Your task to perform on an android device: Open my contact list Image 0: 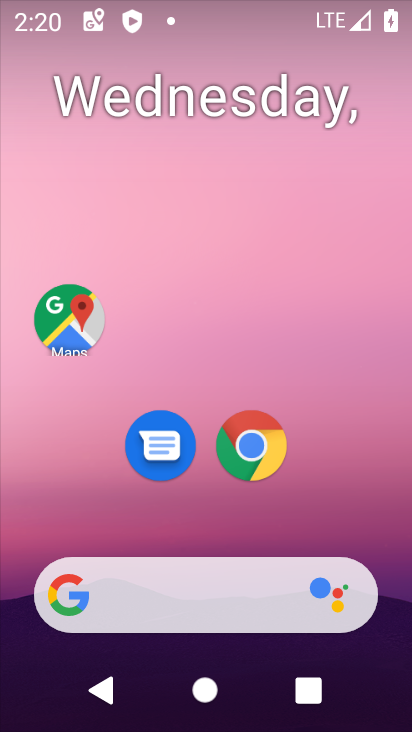
Step 0: drag from (207, 516) to (211, 163)
Your task to perform on an android device: Open my contact list Image 1: 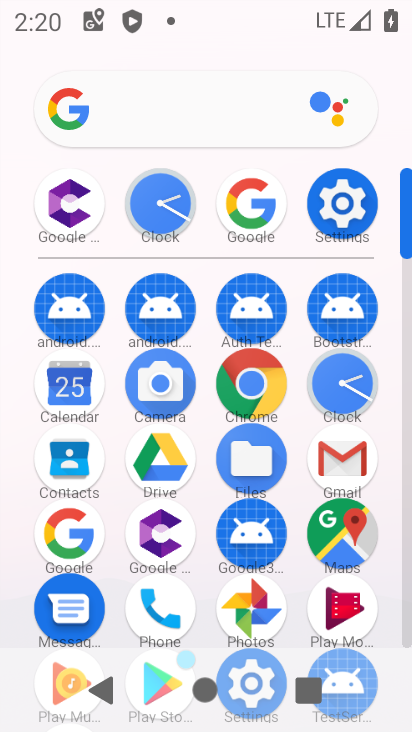
Step 1: click (89, 464)
Your task to perform on an android device: Open my contact list Image 2: 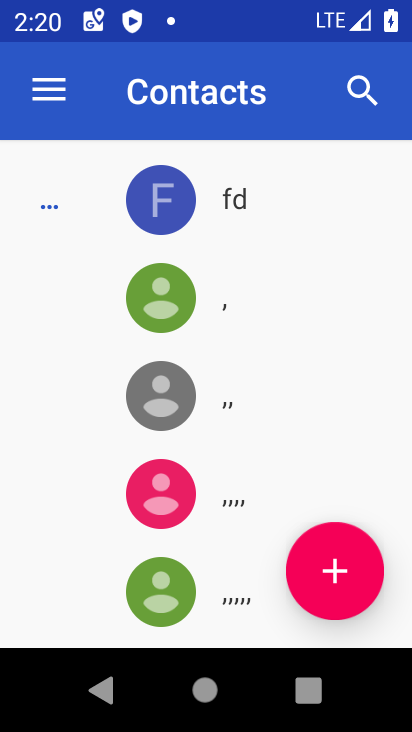
Step 2: task complete